Your task to perform on an android device: Check the weather Image 0: 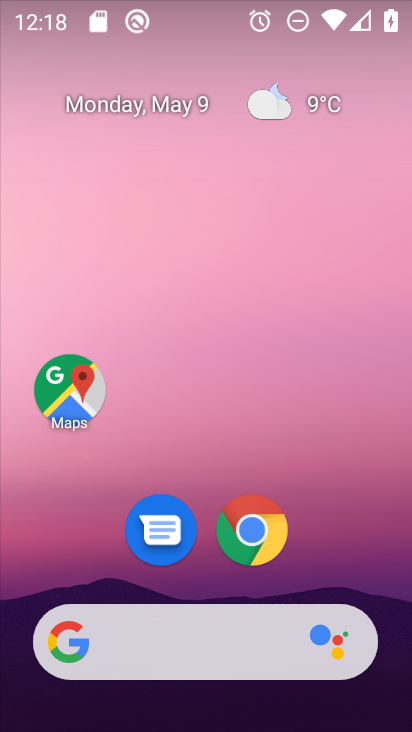
Step 0: click (299, 107)
Your task to perform on an android device: Check the weather Image 1: 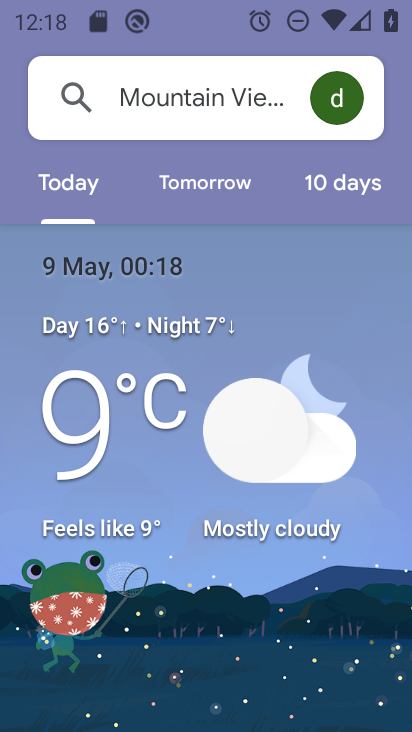
Step 1: task complete